Your task to perform on an android device: Open display settings Image 0: 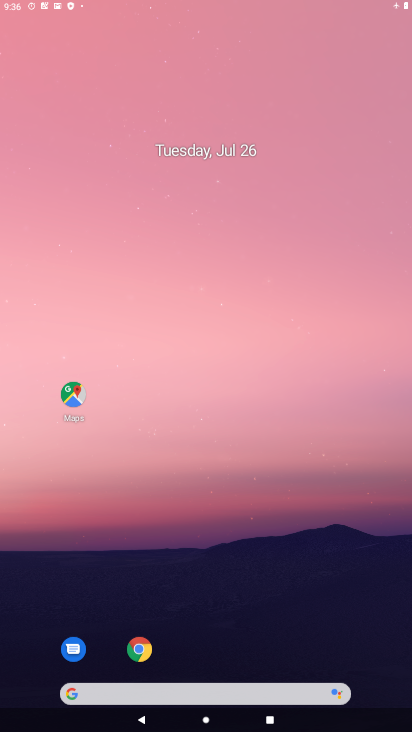
Step 0: drag from (264, 14) to (191, 0)
Your task to perform on an android device: Open display settings Image 1: 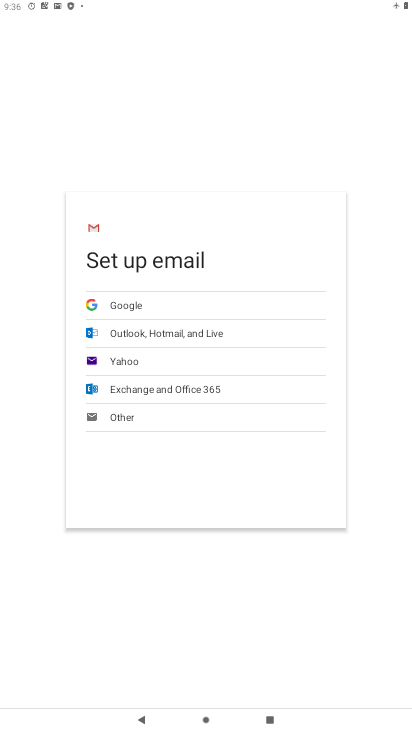
Step 1: press home button
Your task to perform on an android device: Open display settings Image 2: 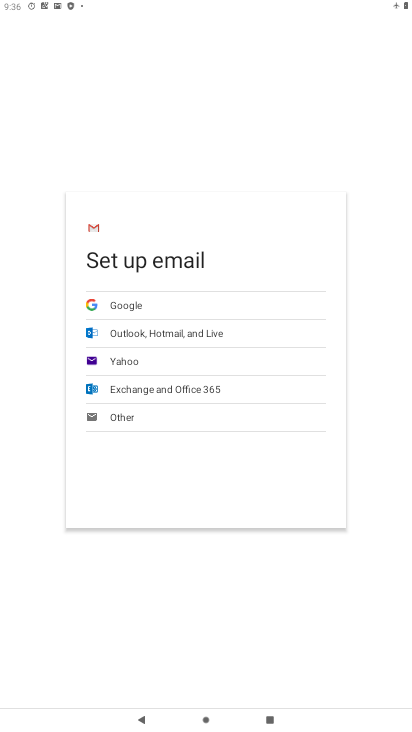
Step 2: press home button
Your task to perform on an android device: Open display settings Image 3: 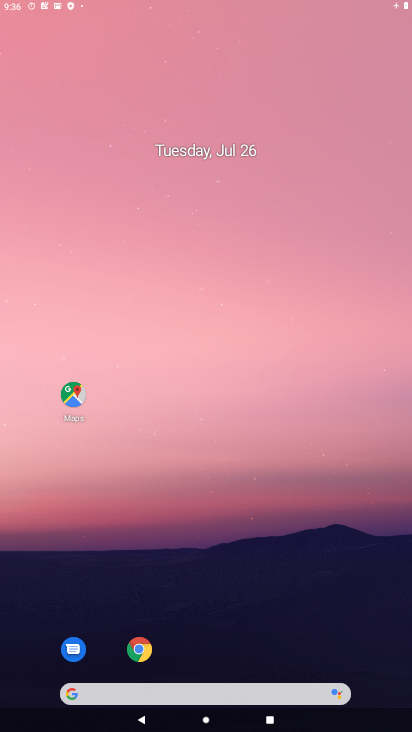
Step 3: drag from (210, 587) to (275, 38)
Your task to perform on an android device: Open display settings Image 4: 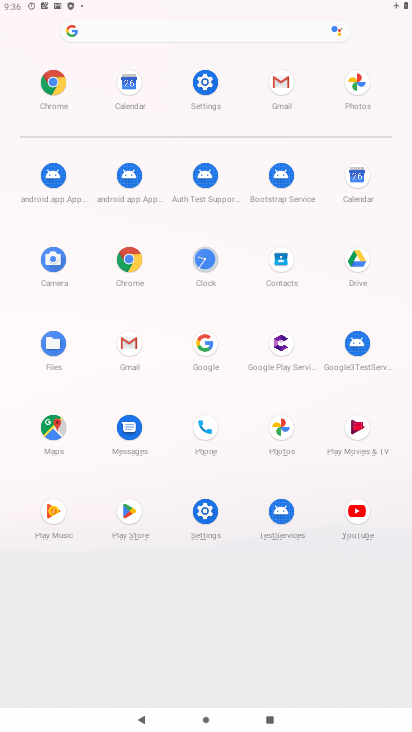
Step 4: click (202, 506)
Your task to perform on an android device: Open display settings Image 5: 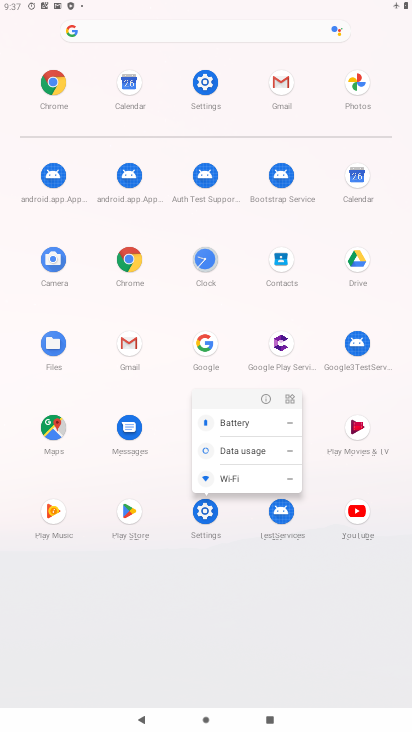
Step 5: click (263, 395)
Your task to perform on an android device: Open display settings Image 6: 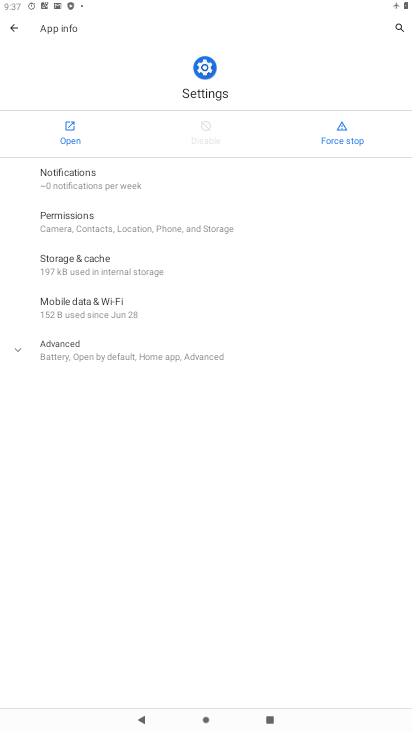
Step 6: click (74, 132)
Your task to perform on an android device: Open display settings Image 7: 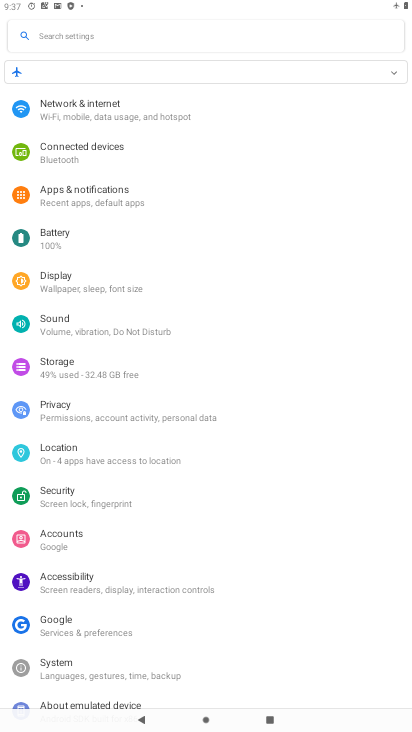
Step 7: click (84, 283)
Your task to perform on an android device: Open display settings Image 8: 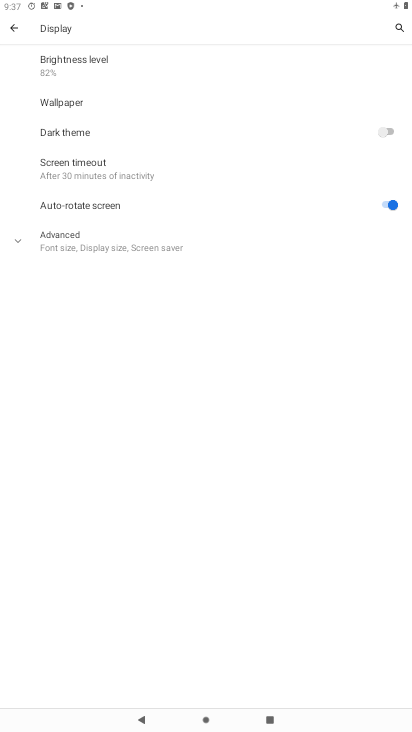
Step 8: task complete